Your task to perform on an android device: Go to battery settings Image 0: 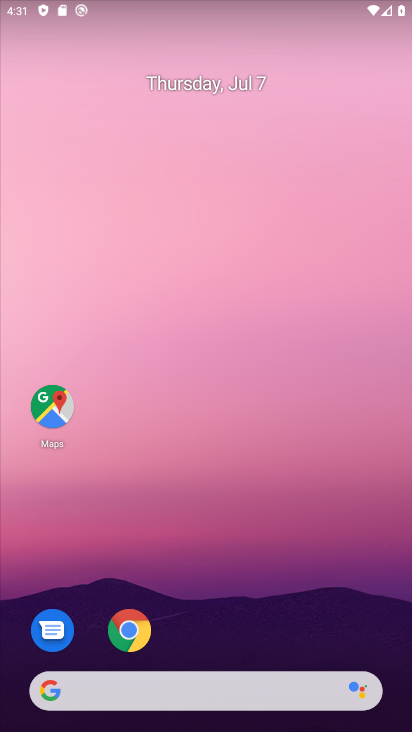
Step 0: press home button
Your task to perform on an android device: Go to battery settings Image 1: 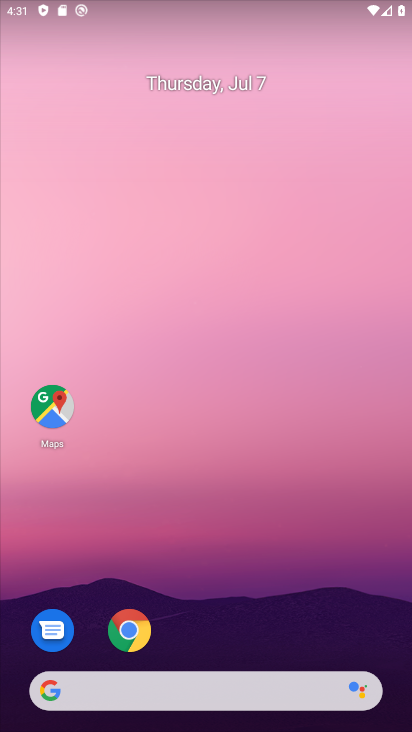
Step 1: drag from (241, 493) to (238, 250)
Your task to perform on an android device: Go to battery settings Image 2: 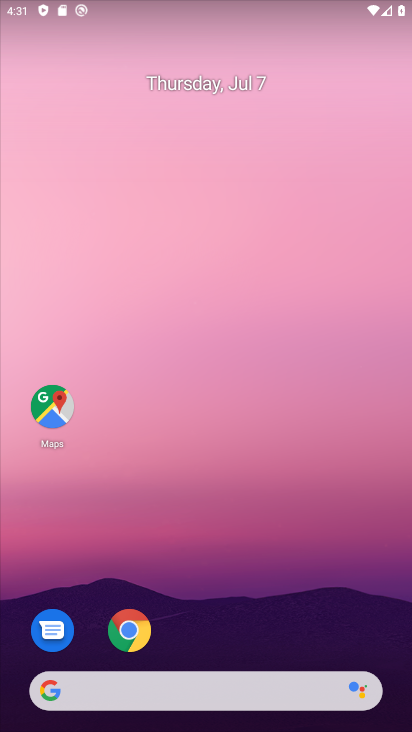
Step 2: drag from (180, 639) to (185, 121)
Your task to perform on an android device: Go to battery settings Image 3: 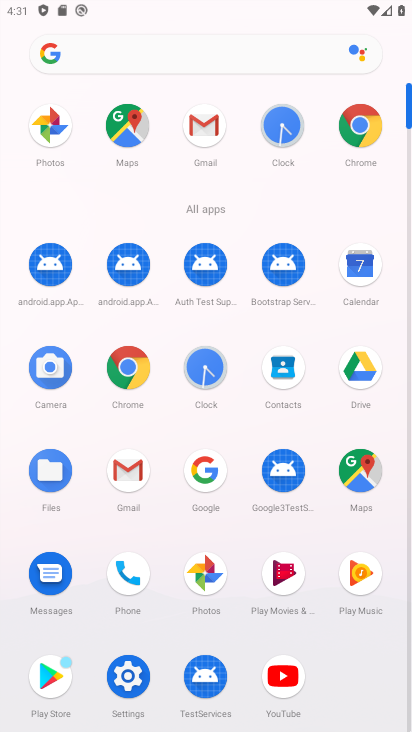
Step 3: click (117, 679)
Your task to perform on an android device: Go to battery settings Image 4: 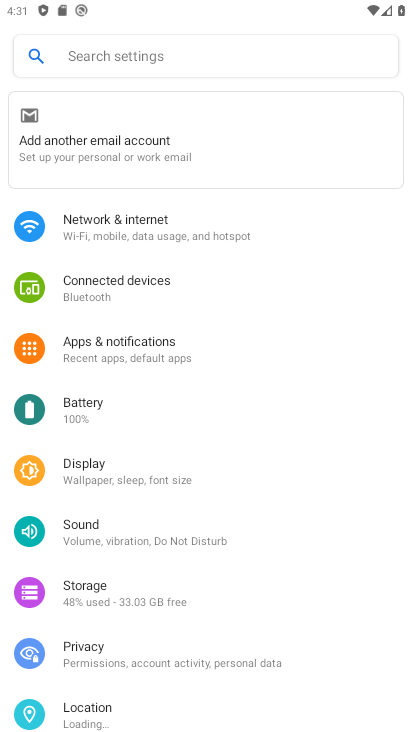
Step 4: click (86, 407)
Your task to perform on an android device: Go to battery settings Image 5: 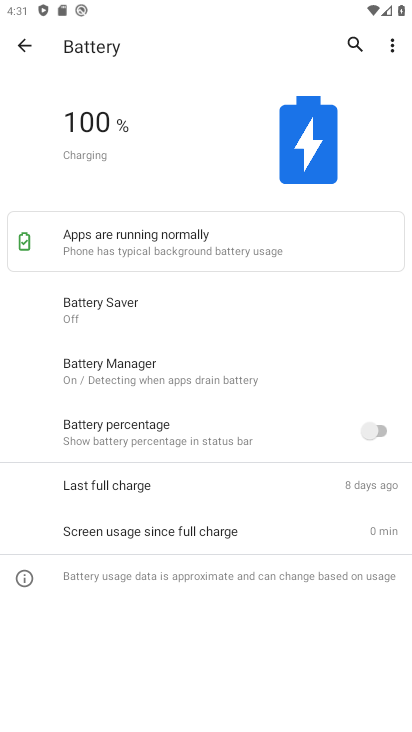
Step 5: task complete